Your task to perform on an android device: turn on improve location accuracy Image 0: 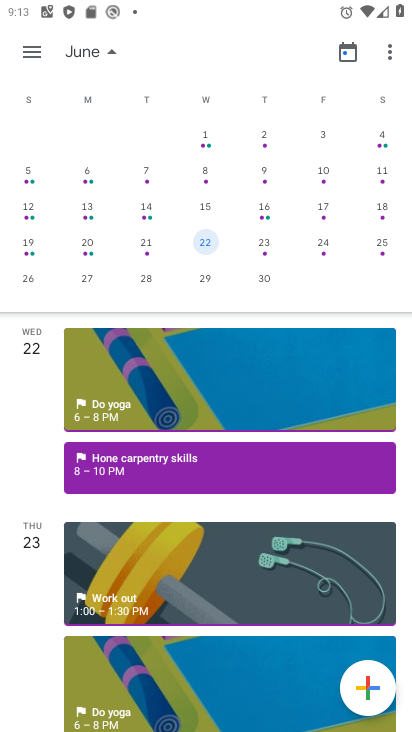
Step 0: drag from (312, 600) to (255, 221)
Your task to perform on an android device: turn on improve location accuracy Image 1: 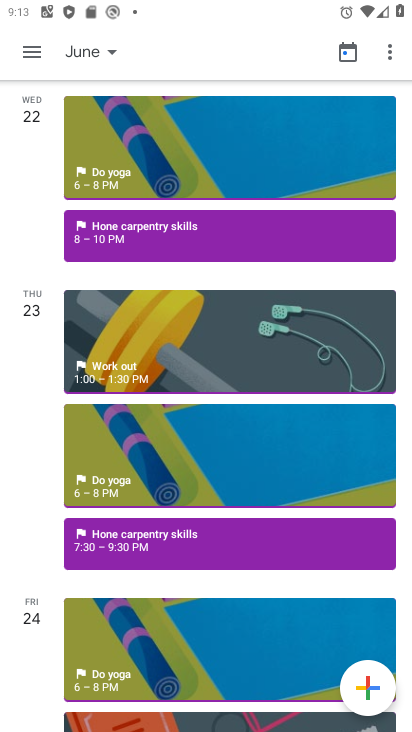
Step 1: press home button
Your task to perform on an android device: turn on improve location accuracy Image 2: 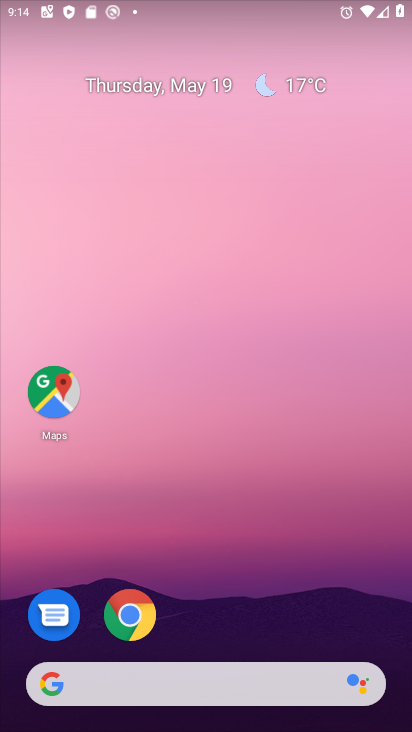
Step 2: drag from (316, 637) to (269, 9)
Your task to perform on an android device: turn on improve location accuracy Image 3: 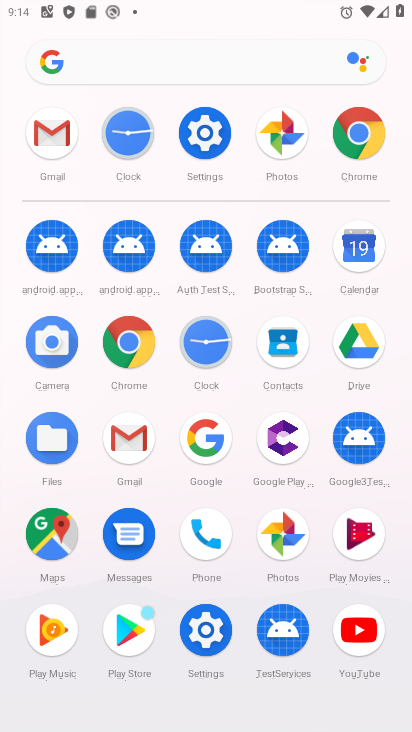
Step 3: click (206, 125)
Your task to perform on an android device: turn on improve location accuracy Image 4: 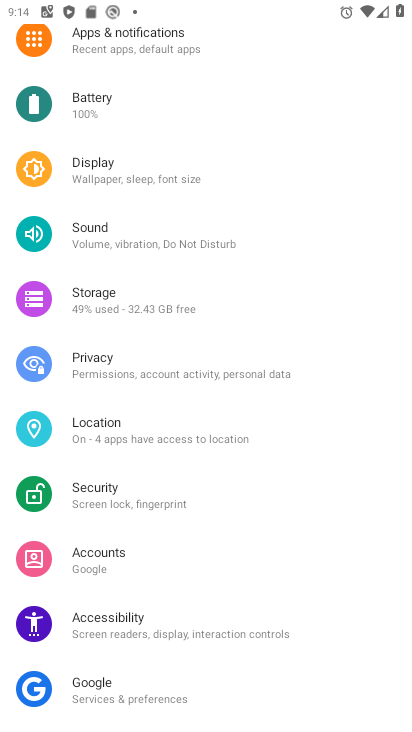
Step 4: drag from (156, 658) to (125, 524)
Your task to perform on an android device: turn on improve location accuracy Image 5: 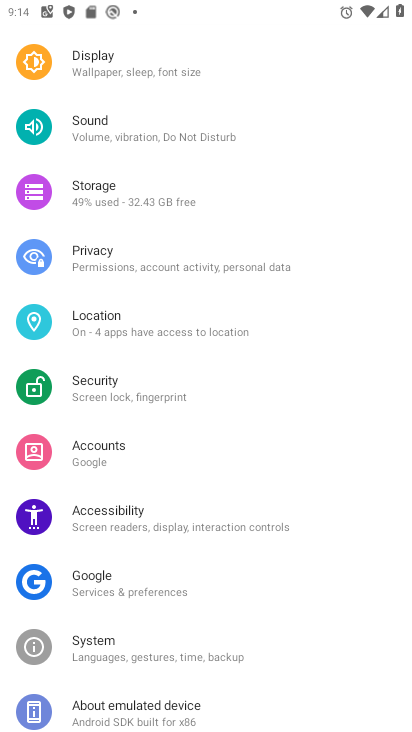
Step 5: click (110, 311)
Your task to perform on an android device: turn on improve location accuracy Image 6: 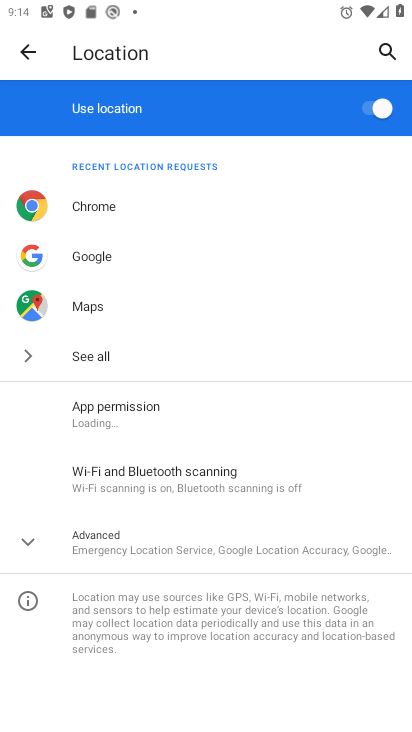
Step 6: drag from (134, 479) to (127, 544)
Your task to perform on an android device: turn on improve location accuracy Image 7: 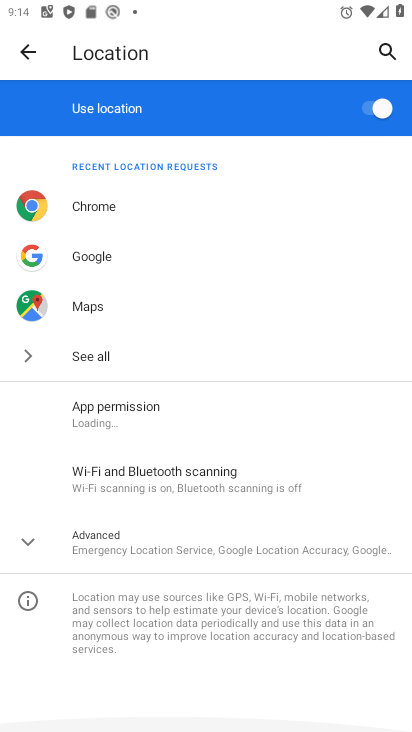
Step 7: click (127, 544)
Your task to perform on an android device: turn on improve location accuracy Image 8: 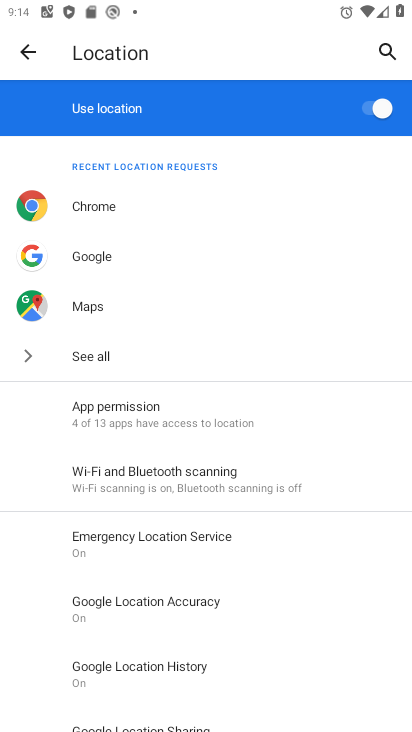
Step 8: click (132, 594)
Your task to perform on an android device: turn on improve location accuracy Image 9: 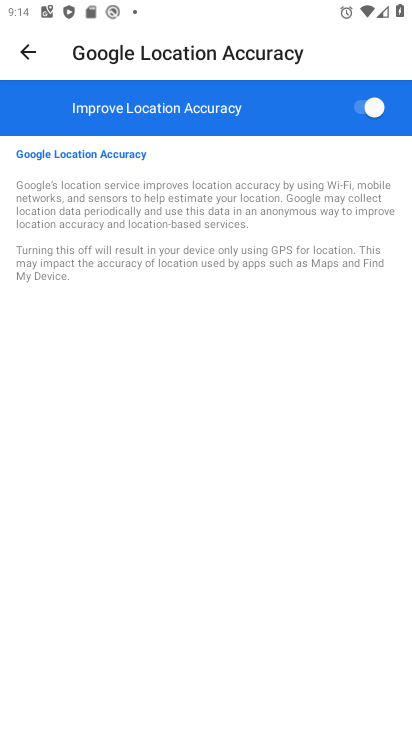
Step 9: task complete